Your task to perform on an android device: Is it going to rain today? Image 0: 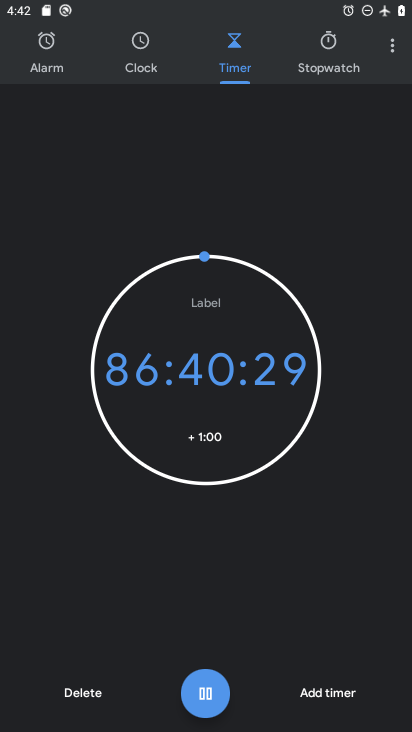
Step 0: press home button
Your task to perform on an android device: Is it going to rain today? Image 1: 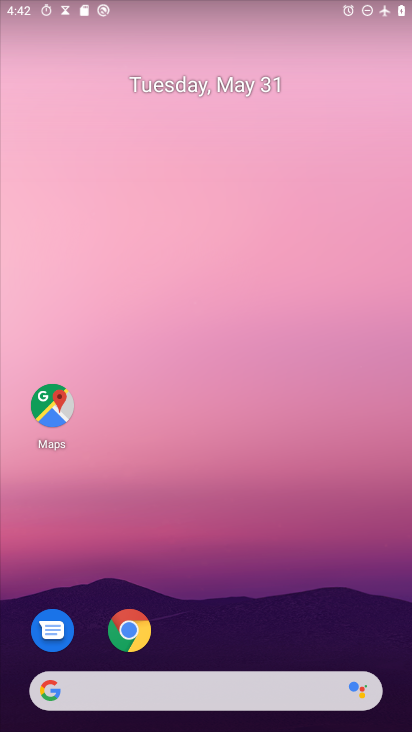
Step 1: drag from (26, 168) to (409, 169)
Your task to perform on an android device: Is it going to rain today? Image 2: 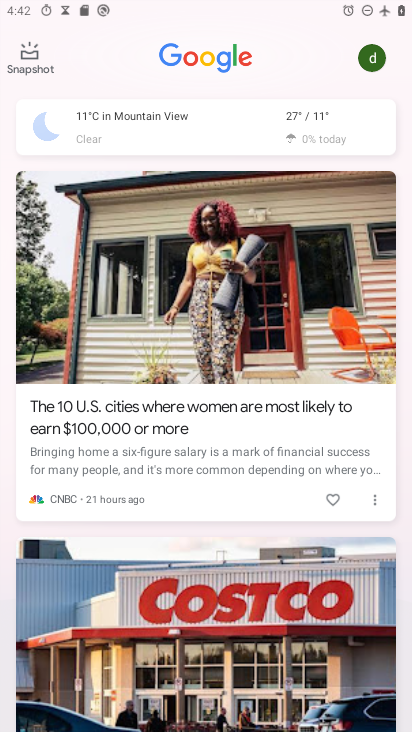
Step 2: click (268, 125)
Your task to perform on an android device: Is it going to rain today? Image 3: 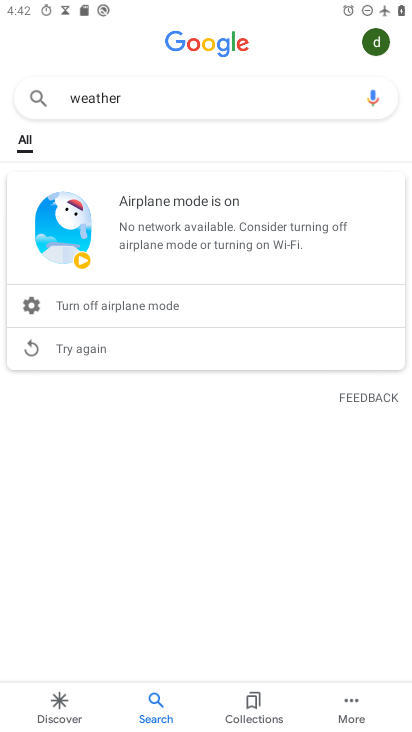
Step 3: task complete